Your task to perform on an android device: refresh tabs in the chrome app Image 0: 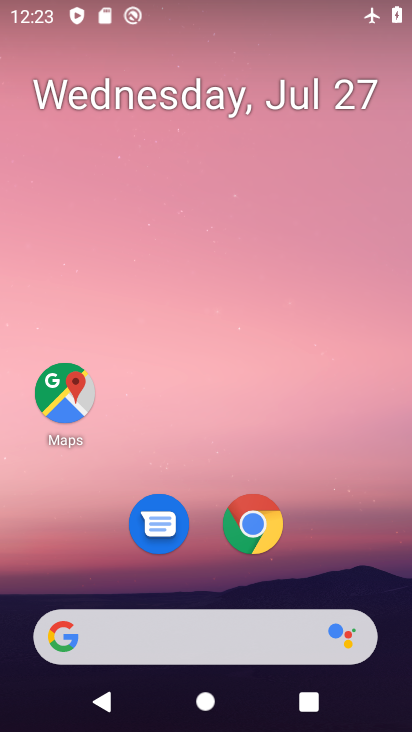
Step 0: click (60, 392)
Your task to perform on an android device: refresh tabs in the chrome app Image 1: 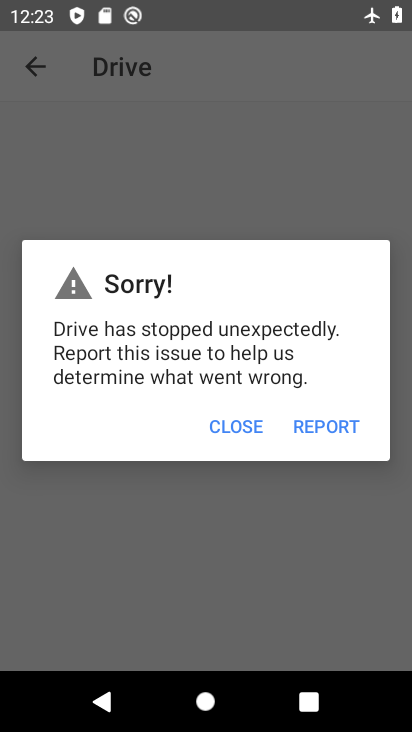
Step 1: press home button
Your task to perform on an android device: refresh tabs in the chrome app Image 2: 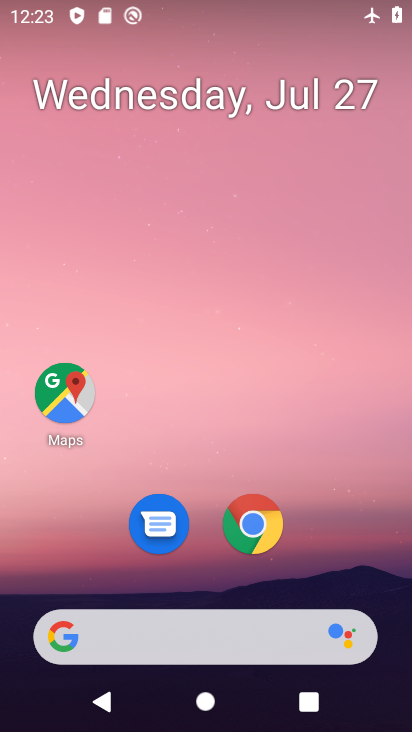
Step 2: click (261, 524)
Your task to perform on an android device: refresh tabs in the chrome app Image 3: 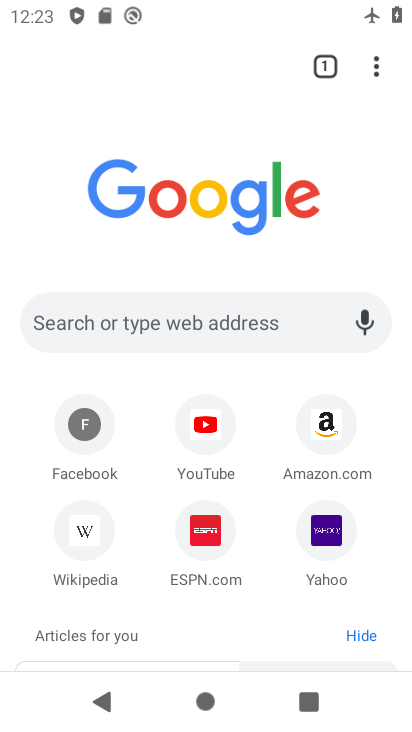
Step 3: click (379, 63)
Your task to perform on an android device: refresh tabs in the chrome app Image 4: 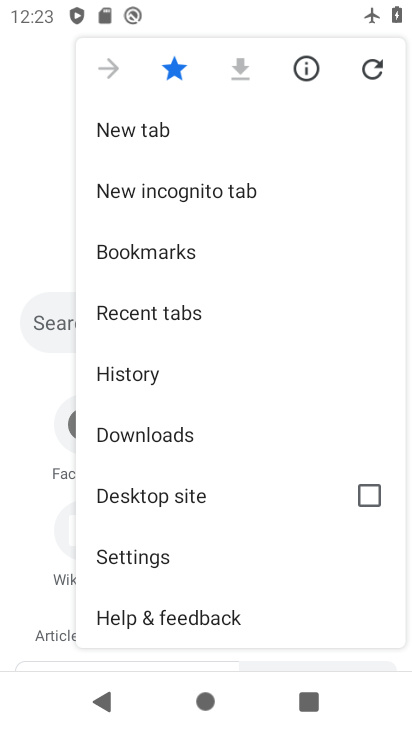
Step 4: click (369, 63)
Your task to perform on an android device: refresh tabs in the chrome app Image 5: 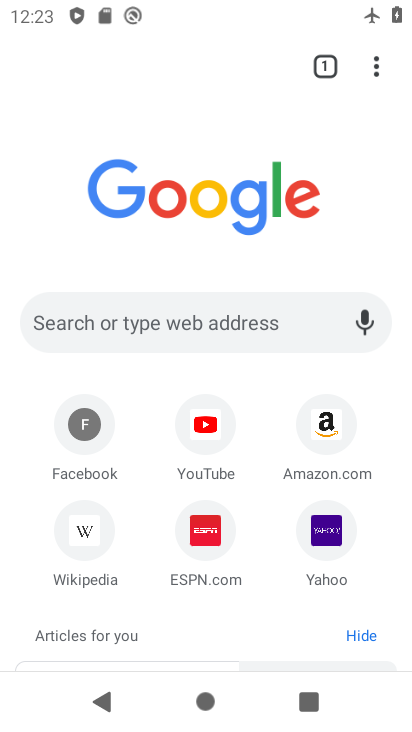
Step 5: task complete